Your task to perform on an android device: snooze an email in the gmail app Image 0: 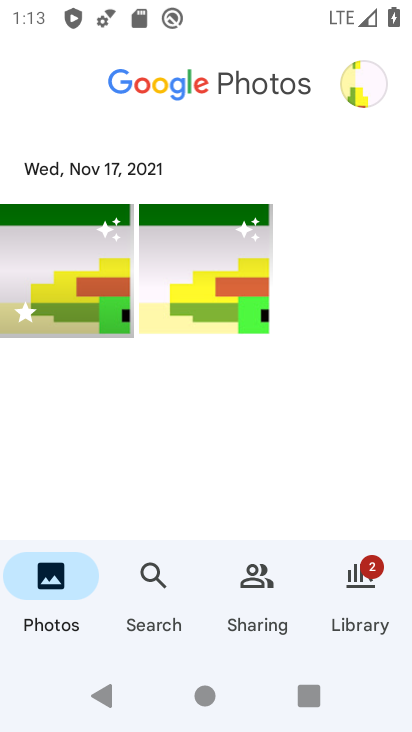
Step 0: press home button
Your task to perform on an android device: snooze an email in the gmail app Image 1: 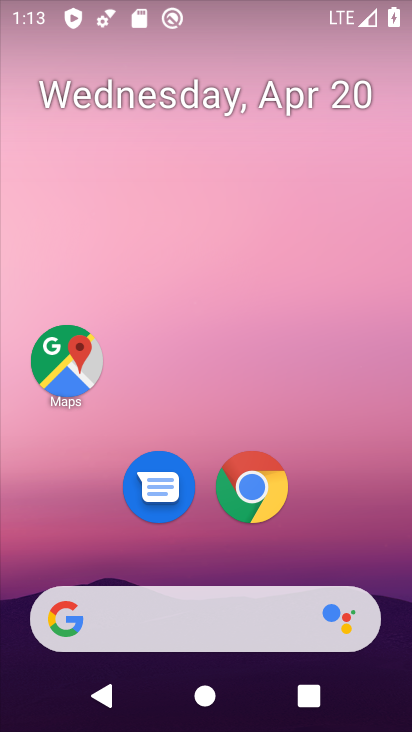
Step 1: drag from (395, 580) to (277, 59)
Your task to perform on an android device: snooze an email in the gmail app Image 2: 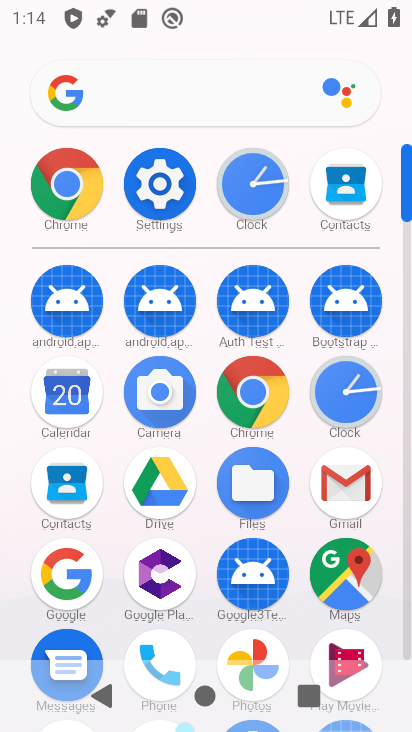
Step 2: click (337, 488)
Your task to perform on an android device: snooze an email in the gmail app Image 3: 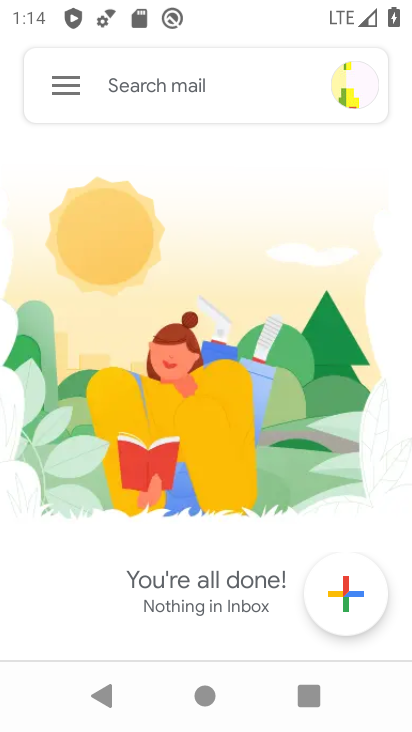
Step 3: click (47, 75)
Your task to perform on an android device: snooze an email in the gmail app Image 4: 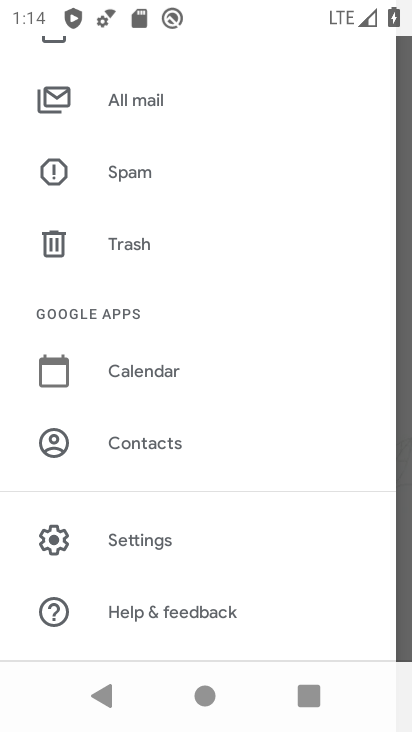
Step 4: drag from (169, 140) to (156, 671)
Your task to perform on an android device: snooze an email in the gmail app Image 5: 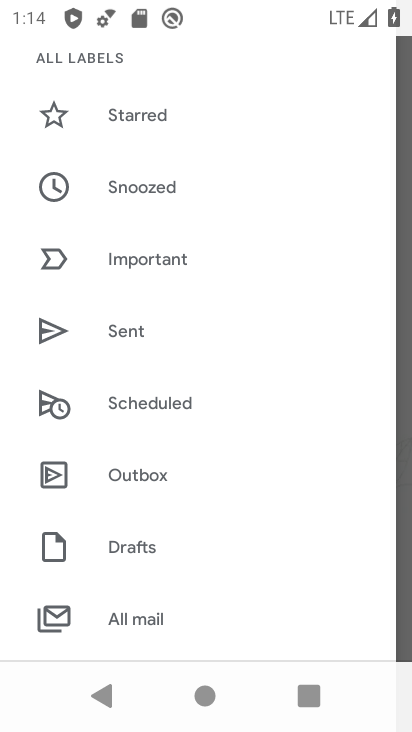
Step 5: click (166, 191)
Your task to perform on an android device: snooze an email in the gmail app Image 6: 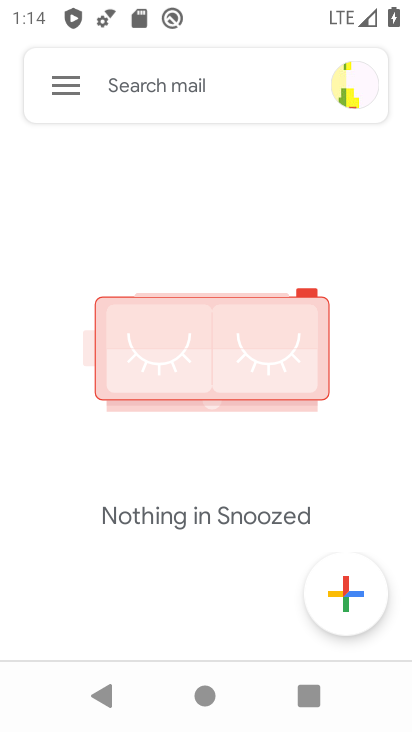
Step 6: task complete